Your task to perform on an android device: open a new tab in the chrome app Image 0: 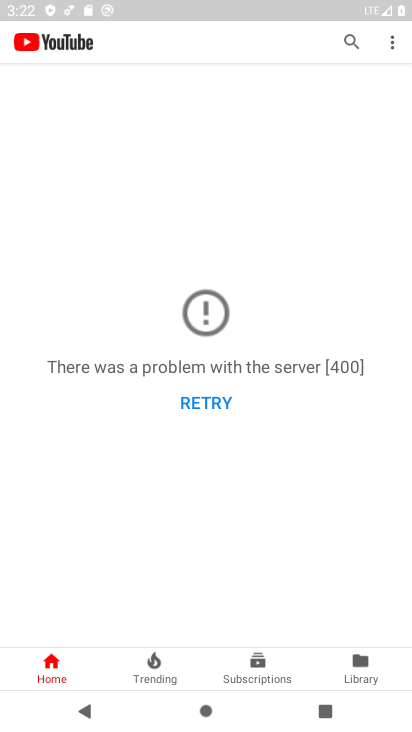
Step 0: press home button
Your task to perform on an android device: open a new tab in the chrome app Image 1: 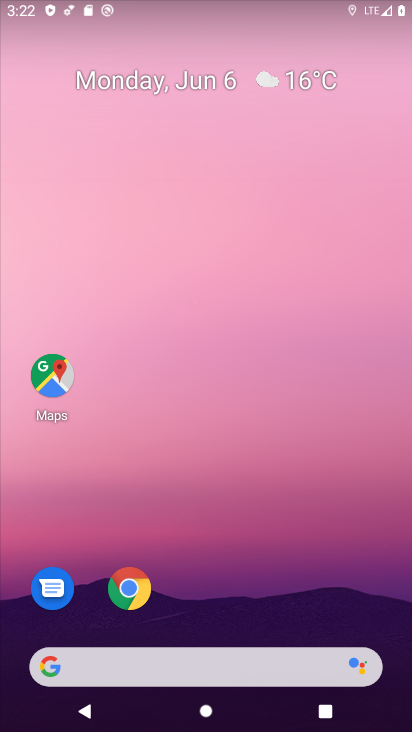
Step 1: click (136, 588)
Your task to perform on an android device: open a new tab in the chrome app Image 2: 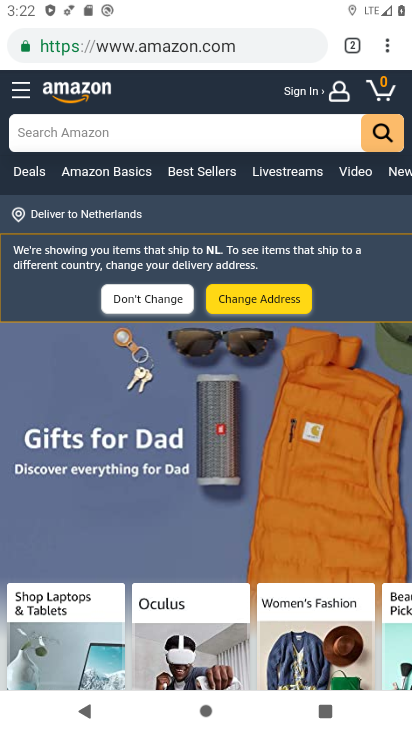
Step 2: click (391, 57)
Your task to perform on an android device: open a new tab in the chrome app Image 3: 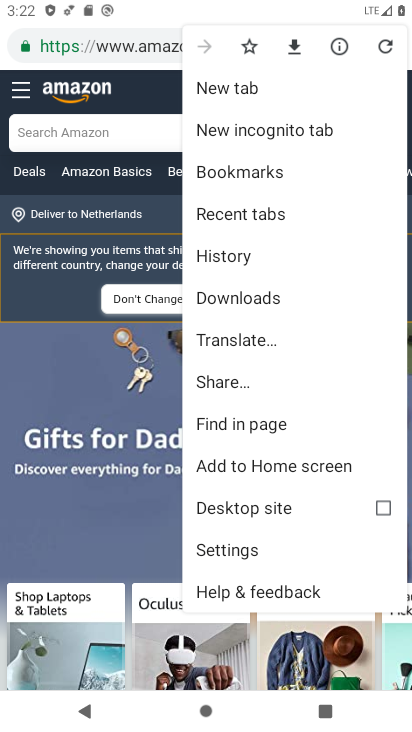
Step 3: click (294, 79)
Your task to perform on an android device: open a new tab in the chrome app Image 4: 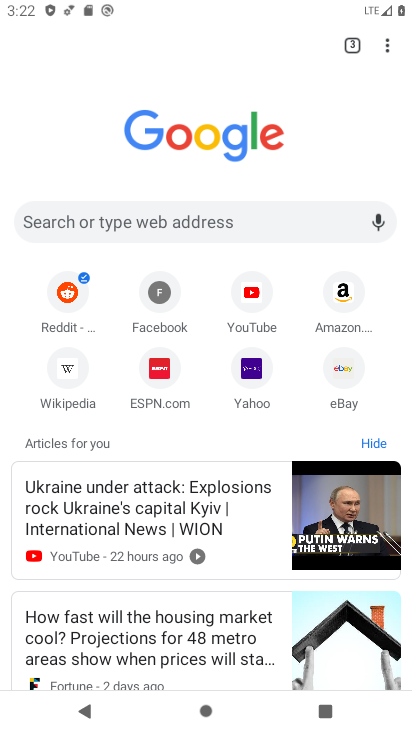
Step 4: task complete